Your task to perform on an android device: open app "Roku - Official Remote Control" (install if not already installed) Image 0: 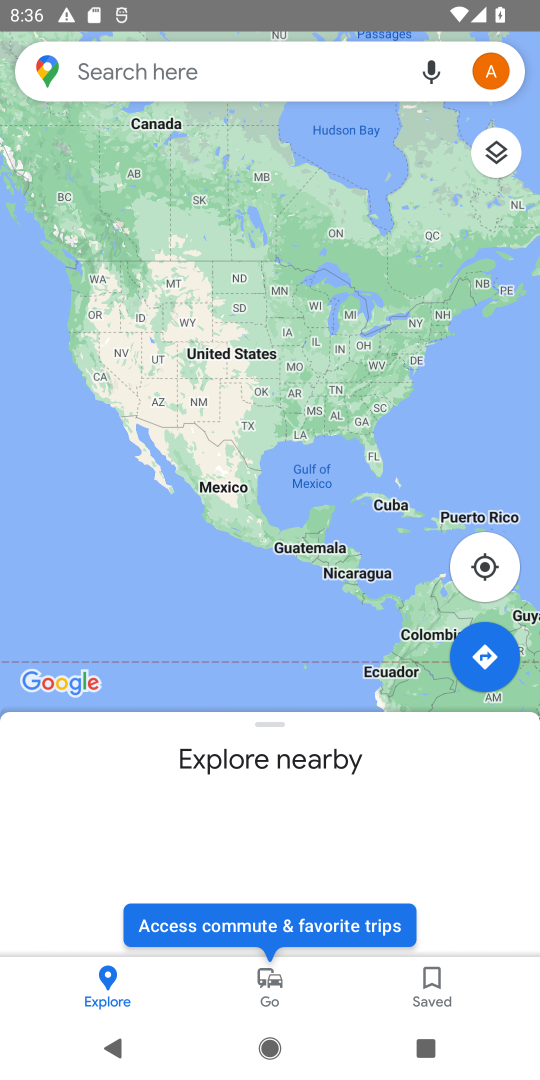
Step 0: press home button
Your task to perform on an android device: open app "Roku - Official Remote Control" (install if not already installed) Image 1: 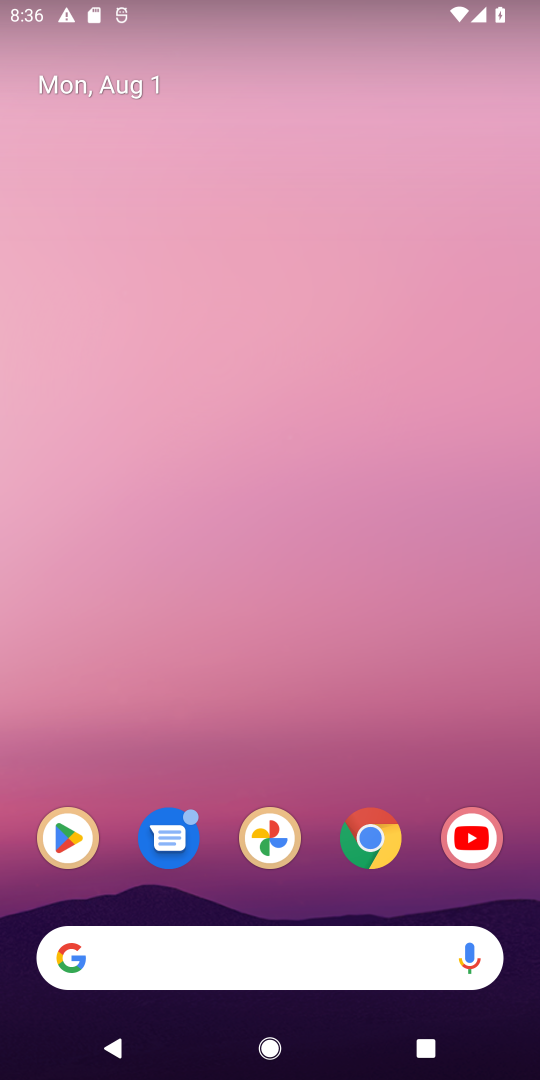
Step 1: drag from (326, 965) to (322, 161)
Your task to perform on an android device: open app "Roku - Official Remote Control" (install if not already installed) Image 2: 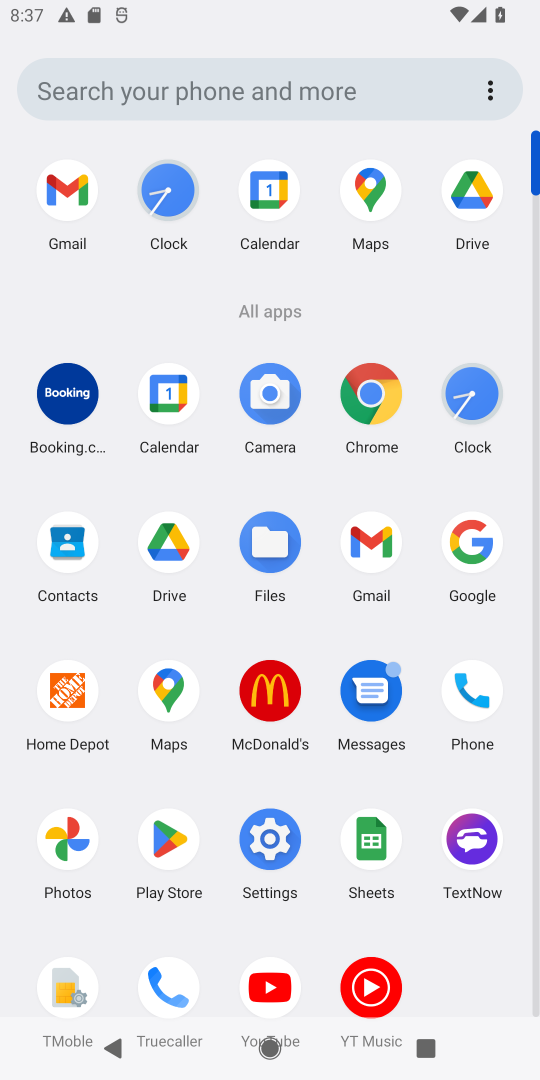
Step 2: click (172, 849)
Your task to perform on an android device: open app "Roku - Official Remote Control" (install if not already installed) Image 3: 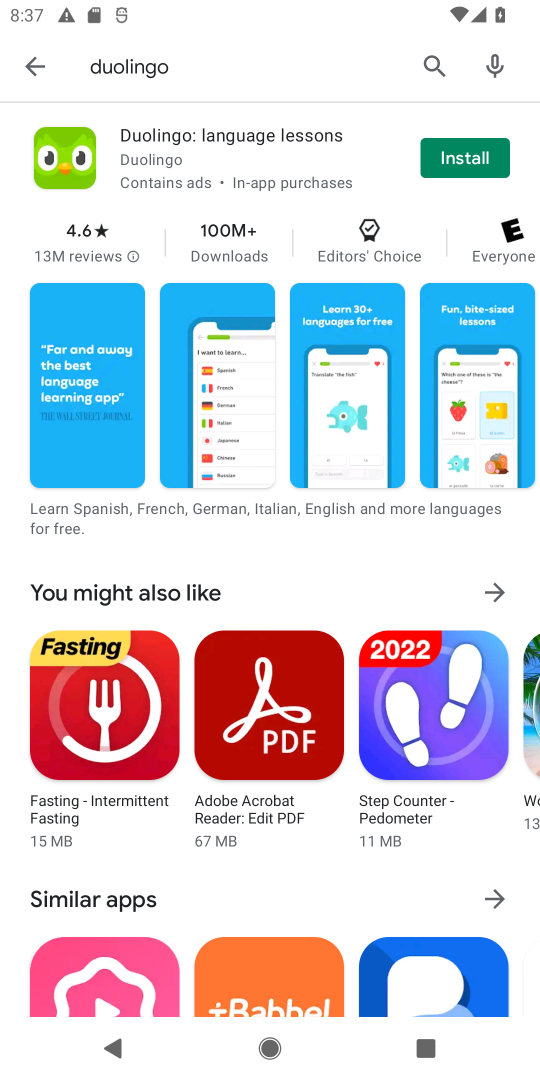
Step 3: click (435, 62)
Your task to perform on an android device: open app "Roku - Official Remote Control" (install if not already installed) Image 4: 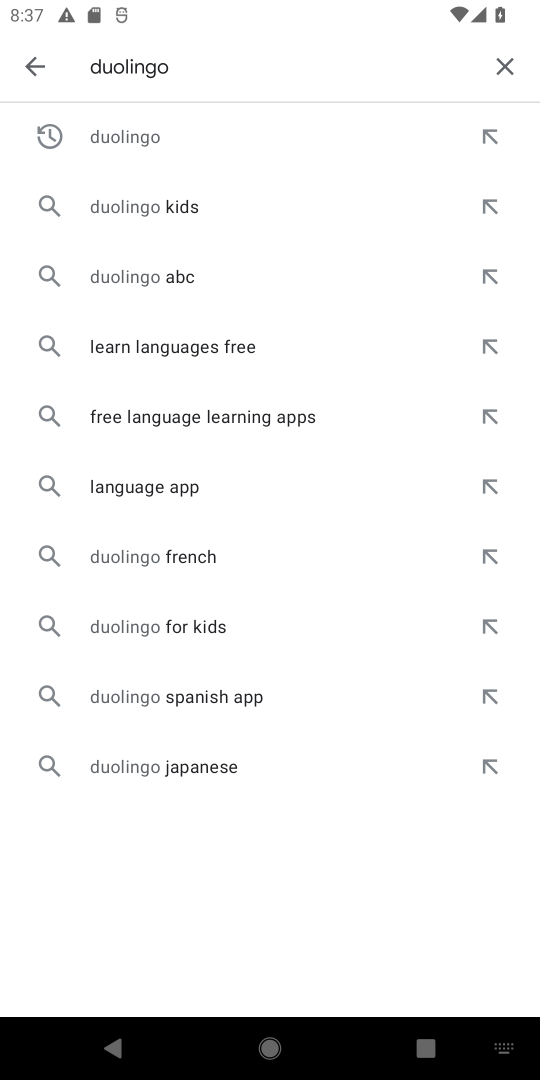
Step 4: click (499, 62)
Your task to perform on an android device: open app "Roku - Official Remote Control" (install if not already installed) Image 5: 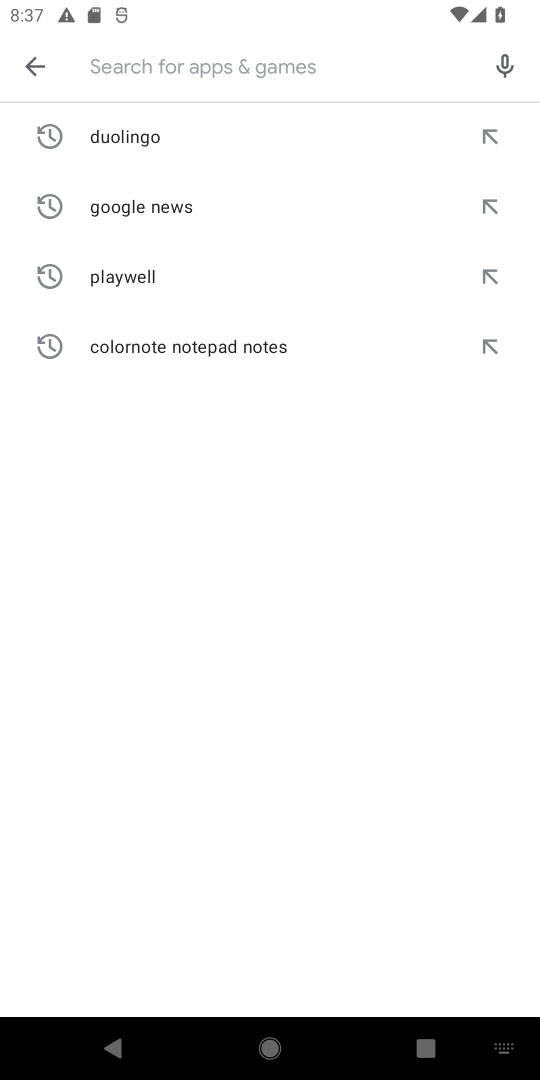
Step 5: type "roku - official remoote control"
Your task to perform on an android device: open app "Roku - Official Remote Control" (install if not already installed) Image 6: 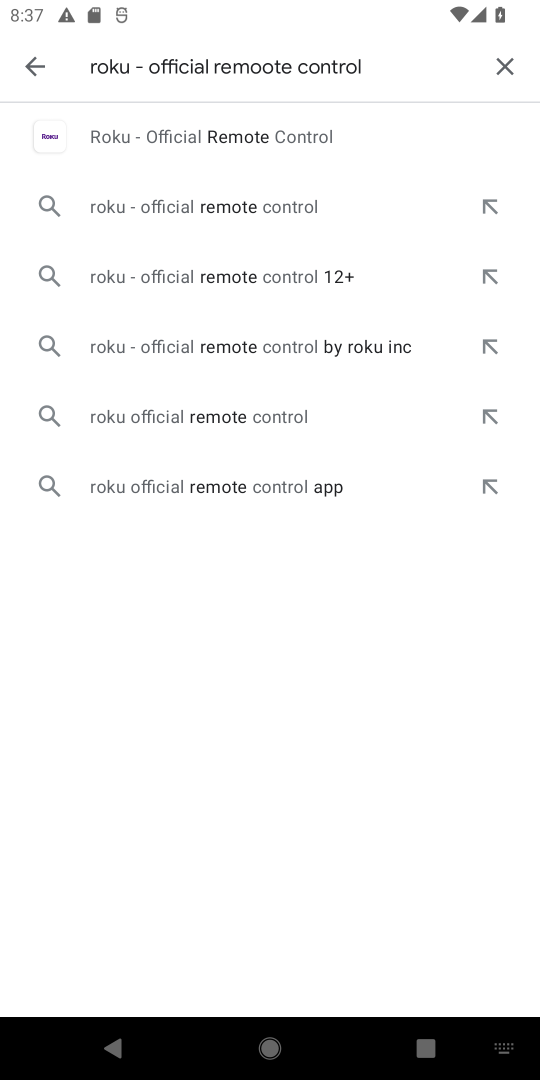
Step 6: click (453, 150)
Your task to perform on an android device: open app "Roku - Official Remote Control" (install if not already installed) Image 7: 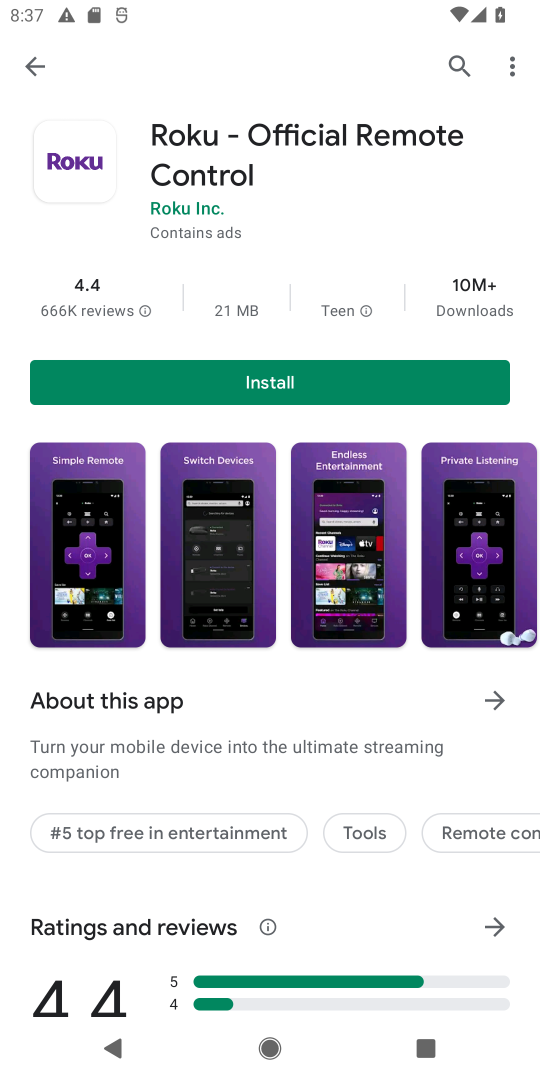
Step 7: click (380, 139)
Your task to perform on an android device: open app "Roku - Official Remote Control" (install if not already installed) Image 8: 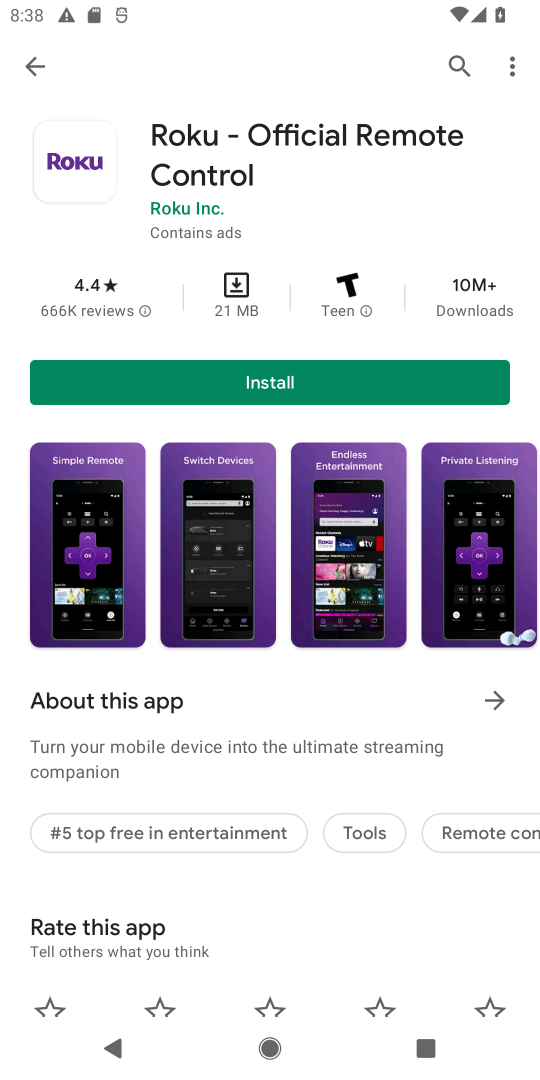
Step 8: click (320, 394)
Your task to perform on an android device: open app "Roku - Official Remote Control" (install if not already installed) Image 9: 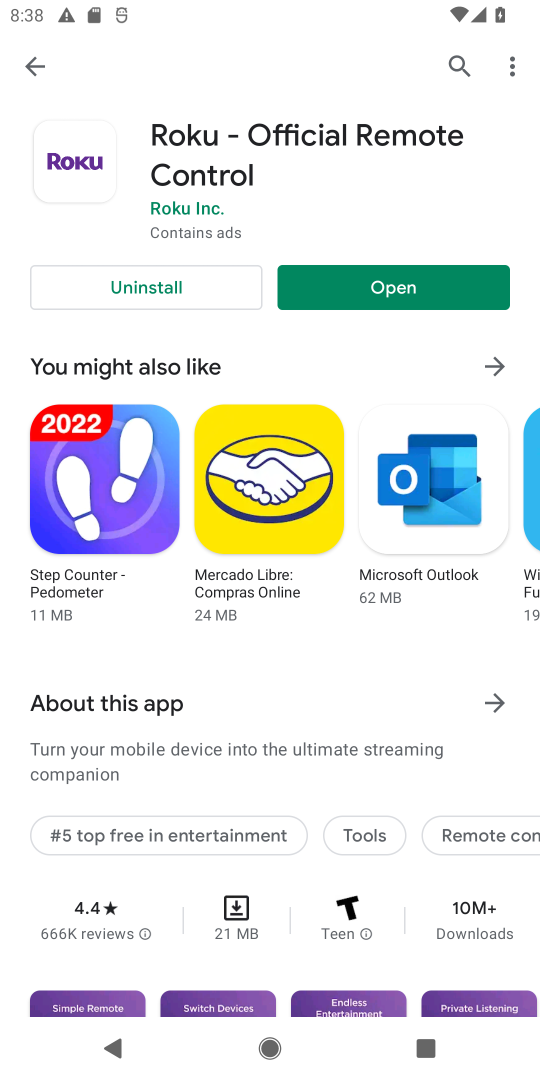
Step 9: click (433, 290)
Your task to perform on an android device: open app "Roku - Official Remote Control" (install if not already installed) Image 10: 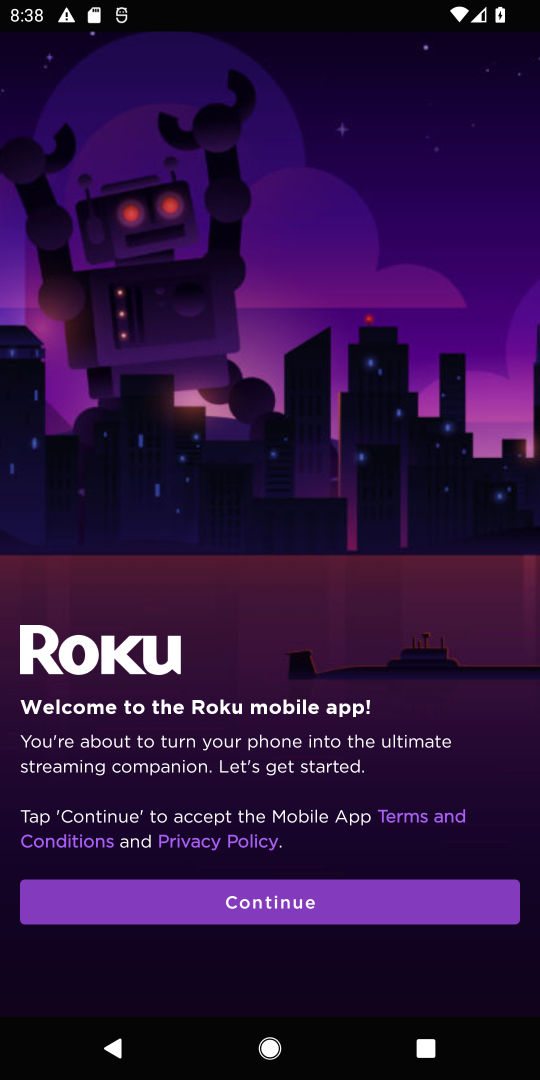
Step 10: task complete